Your task to perform on an android device: check storage Image 0: 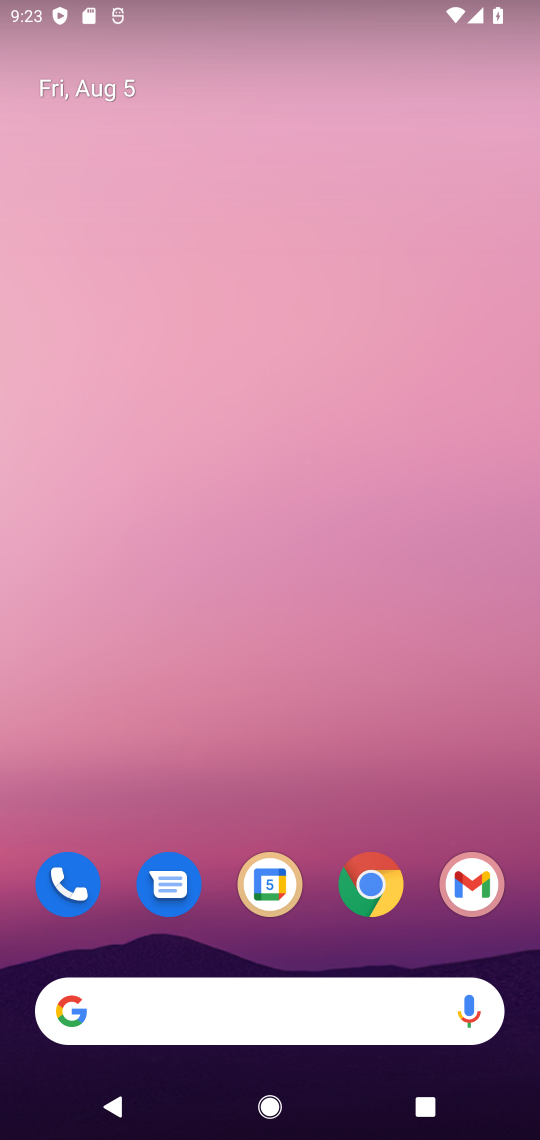
Step 0: drag from (351, 751) to (321, 211)
Your task to perform on an android device: check storage Image 1: 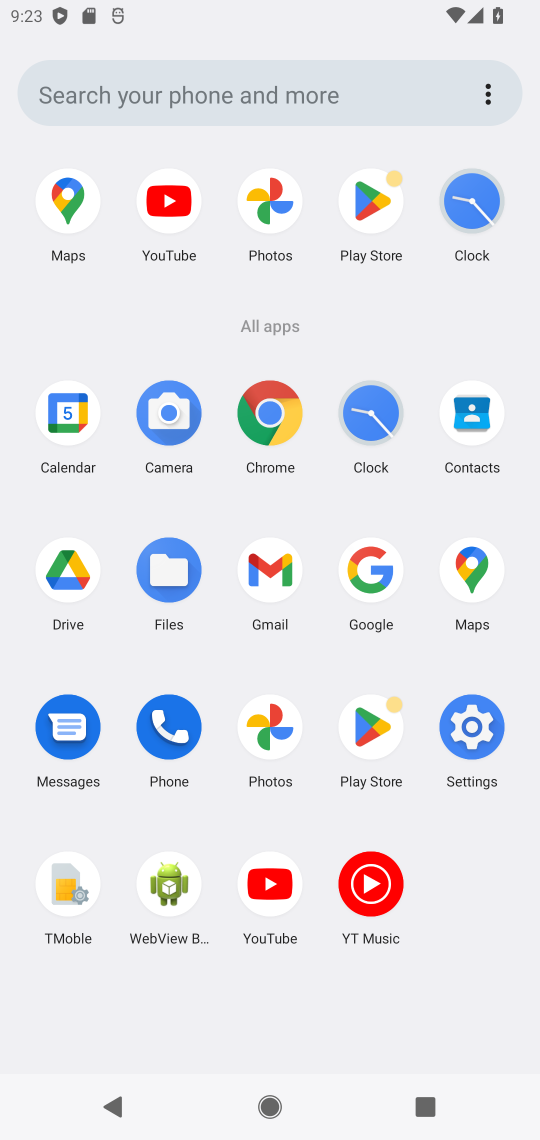
Step 1: click (482, 729)
Your task to perform on an android device: check storage Image 2: 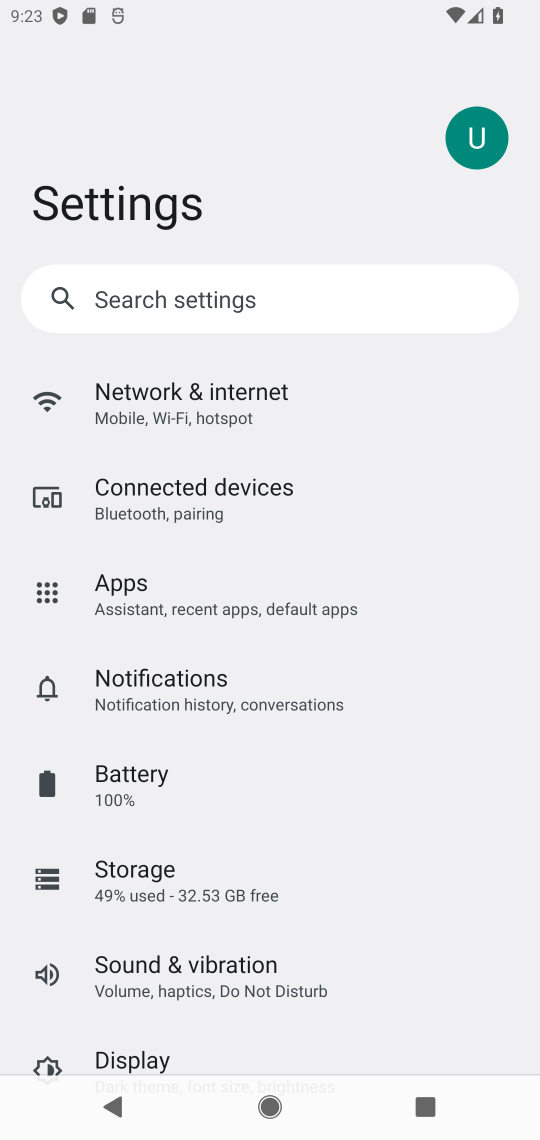
Step 2: click (175, 863)
Your task to perform on an android device: check storage Image 3: 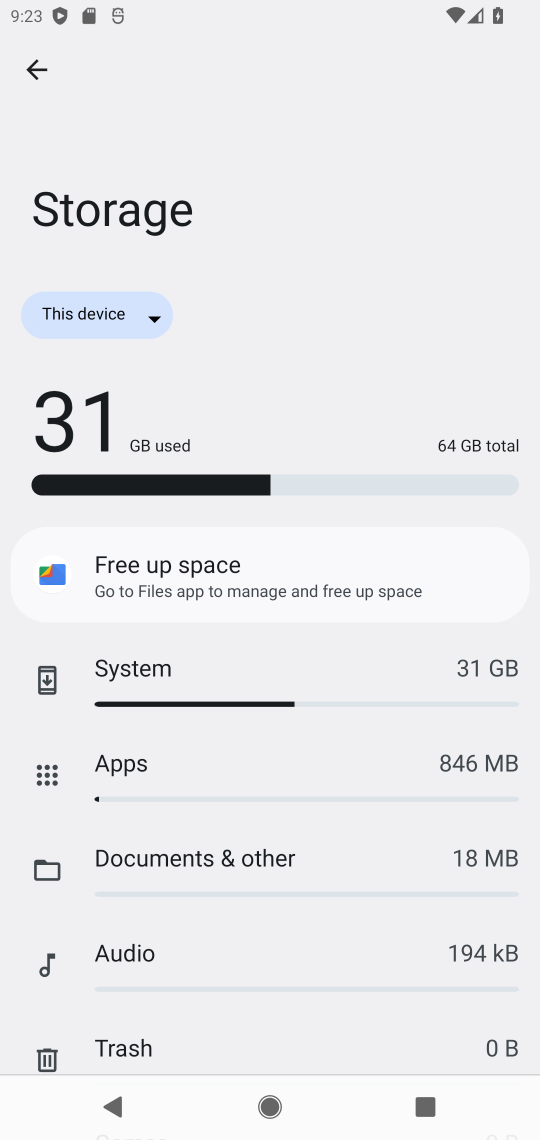
Step 3: task complete